Your task to perform on an android device: turn off javascript in the chrome app Image 0: 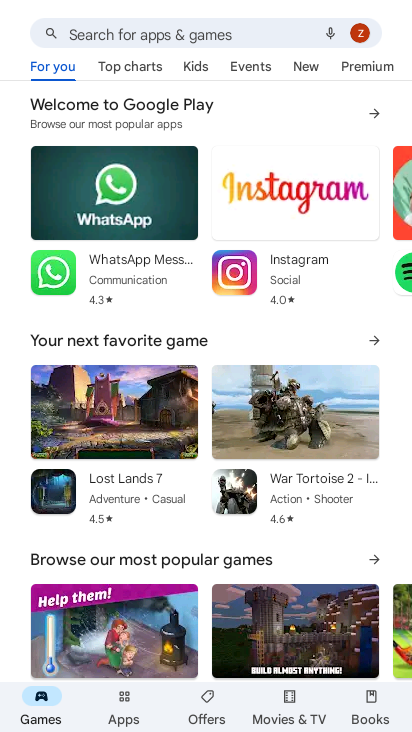
Step 0: press home button
Your task to perform on an android device: turn off javascript in the chrome app Image 1: 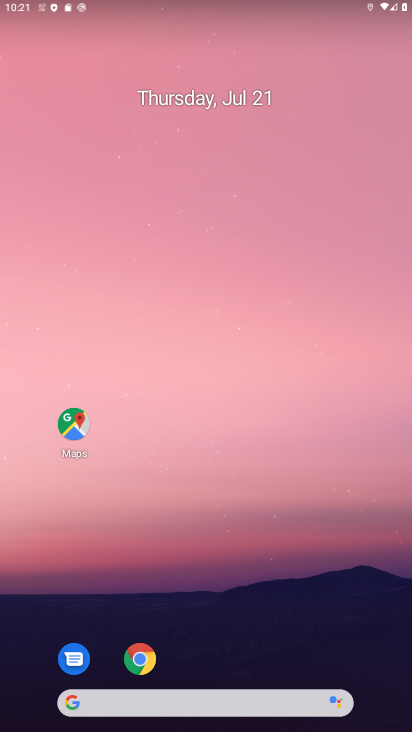
Step 1: drag from (212, 675) to (171, 146)
Your task to perform on an android device: turn off javascript in the chrome app Image 2: 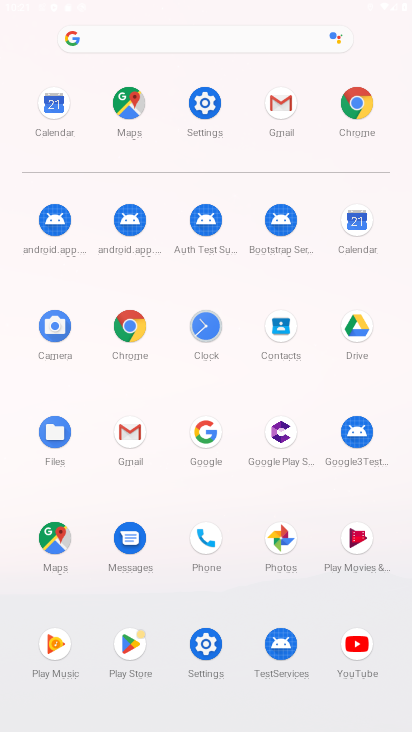
Step 2: click (360, 98)
Your task to perform on an android device: turn off javascript in the chrome app Image 3: 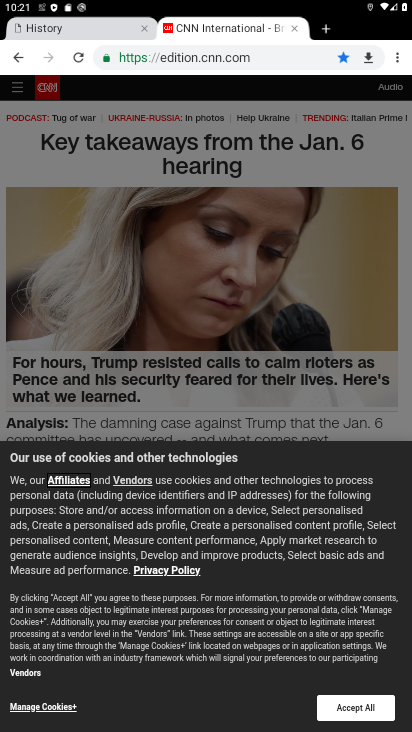
Step 3: click (392, 61)
Your task to perform on an android device: turn off javascript in the chrome app Image 4: 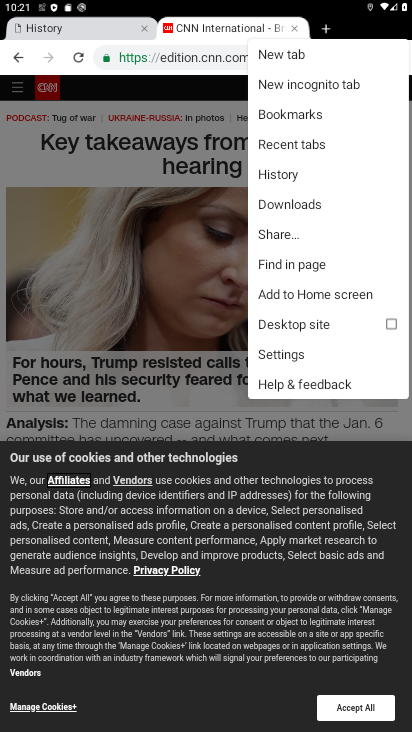
Step 4: click (287, 348)
Your task to perform on an android device: turn off javascript in the chrome app Image 5: 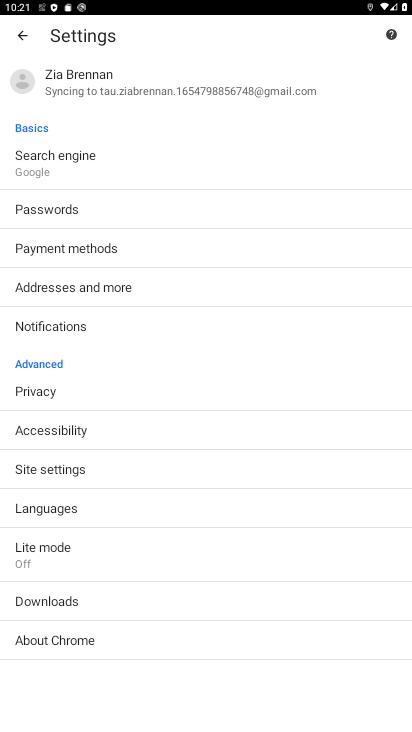
Step 5: click (79, 468)
Your task to perform on an android device: turn off javascript in the chrome app Image 6: 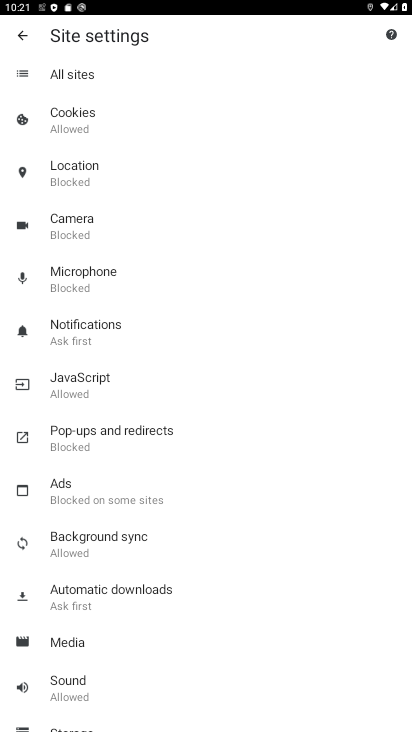
Step 6: click (86, 389)
Your task to perform on an android device: turn off javascript in the chrome app Image 7: 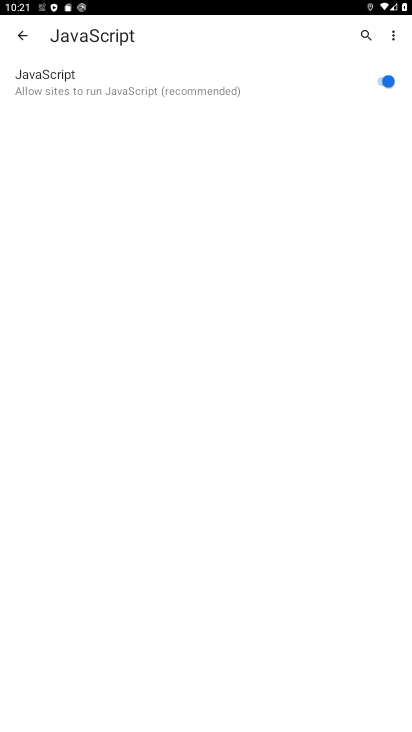
Step 7: click (383, 83)
Your task to perform on an android device: turn off javascript in the chrome app Image 8: 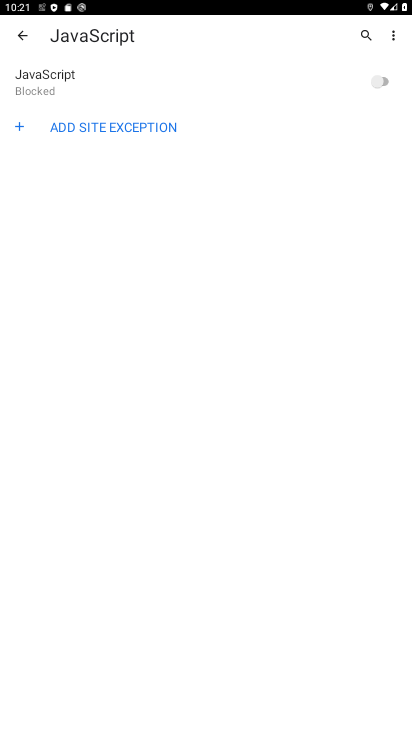
Step 8: task complete